Your task to perform on an android device: uninstall "Google Play services" Image 0: 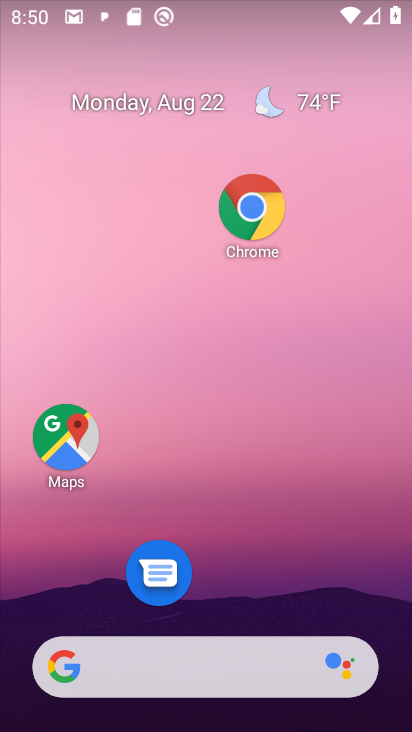
Step 0: drag from (266, 618) to (292, 51)
Your task to perform on an android device: uninstall "Google Play services" Image 1: 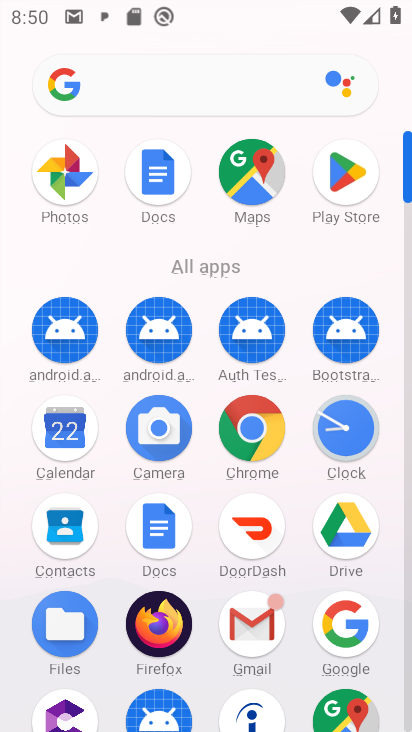
Step 1: click (347, 177)
Your task to perform on an android device: uninstall "Google Play services" Image 2: 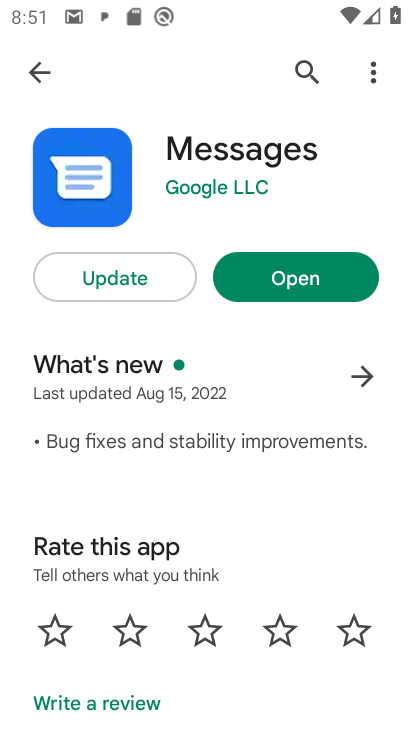
Step 2: click (40, 71)
Your task to perform on an android device: uninstall "Google Play services" Image 3: 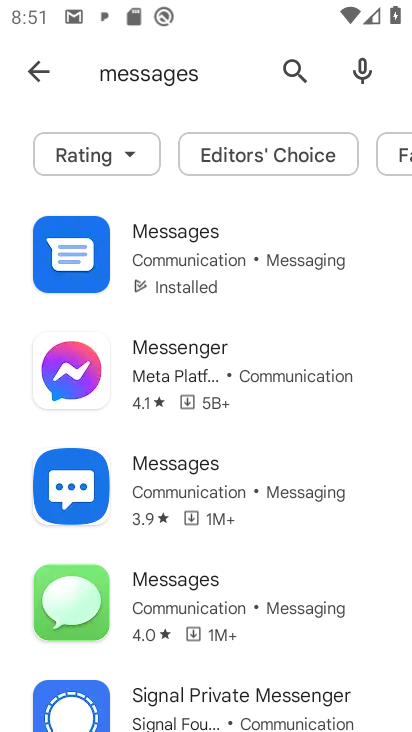
Step 3: click (162, 72)
Your task to perform on an android device: uninstall "Google Play services" Image 4: 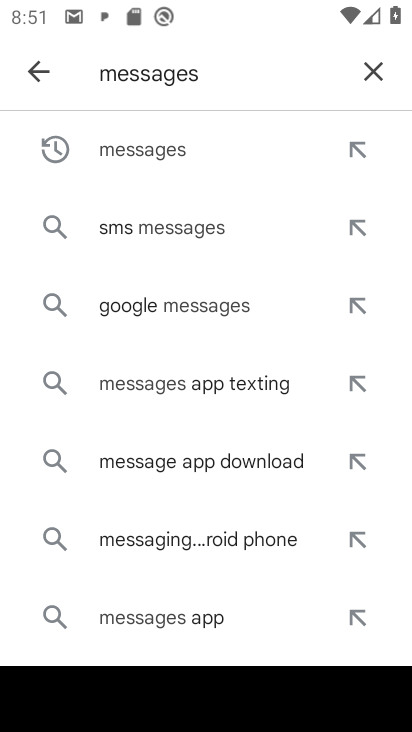
Step 4: click (374, 65)
Your task to perform on an android device: uninstall "Google Play services" Image 5: 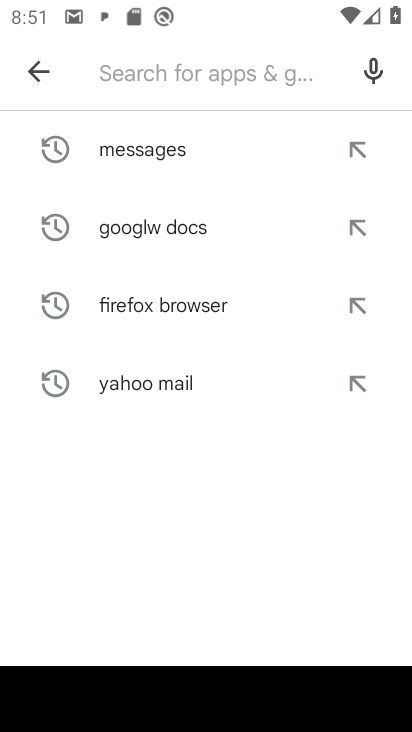
Step 5: type "google play services"
Your task to perform on an android device: uninstall "Google Play services" Image 6: 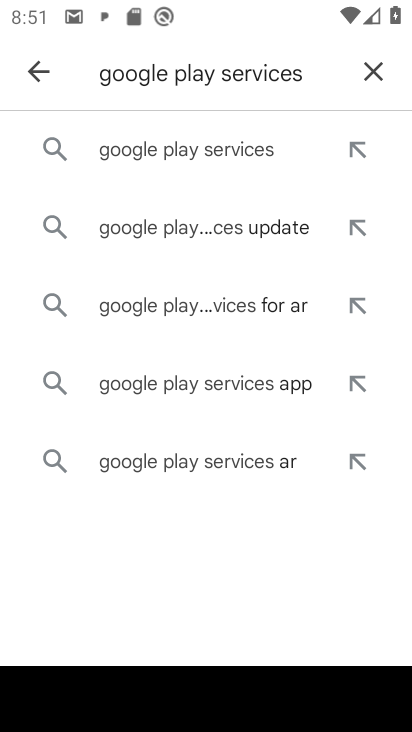
Step 6: click (208, 157)
Your task to perform on an android device: uninstall "Google Play services" Image 7: 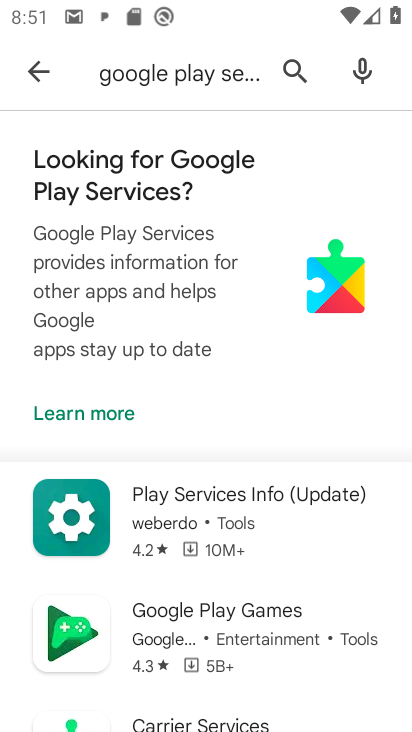
Step 7: drag from (239, 554) to (243, 408)
Your task to perform on an android device: uninstall "Google Play services" Image 8: 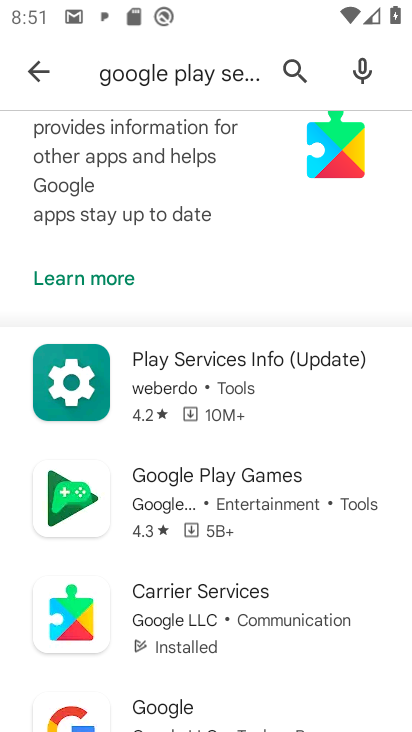
Step 8: click (172, 348)
Your task to perform on an android device: uninstall "Google Play services" Image 9: 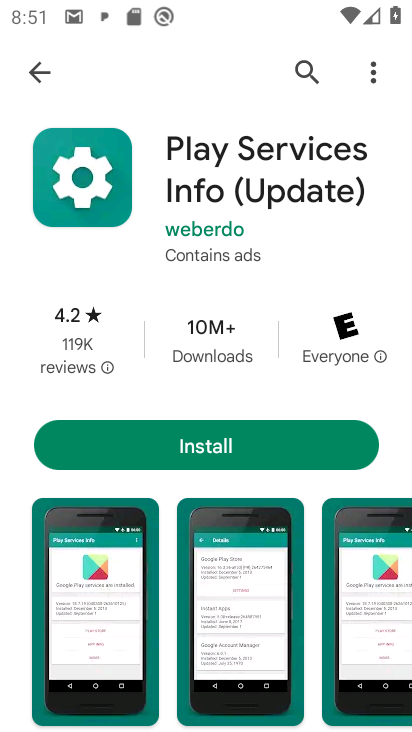
Step 9: task complete